Your task to perform on an android device: find photos in the google photos app Image 0: 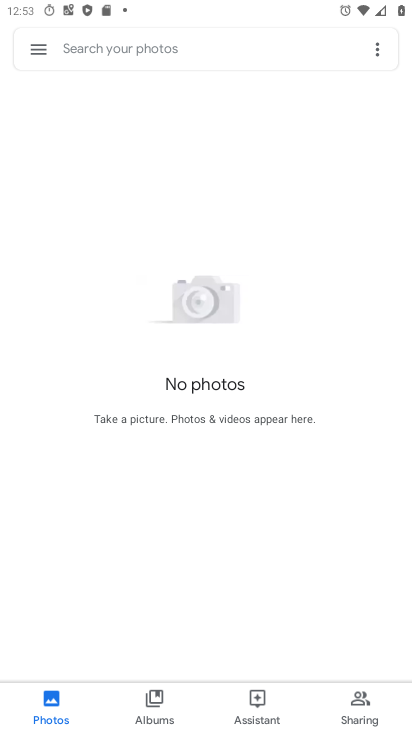
Step 0: click (180, 50)
Your task to perform on an android device: find photos in the google photos app Image 1: 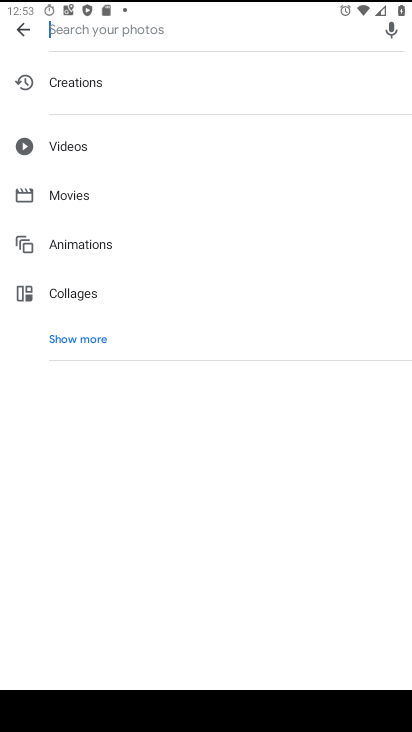
Step 1: type "aa"
Your task to perform on an android device: find photos in the google photos app Image 2: 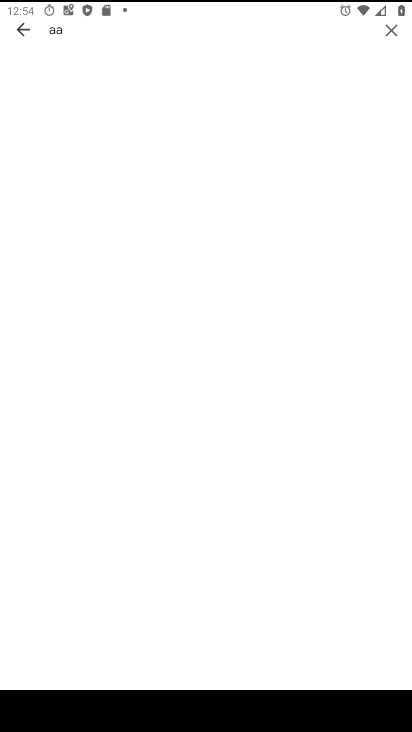
Step 2: task complete